Your task to perform on an android device: install app "Roku - Official Remote Control" Image 0: 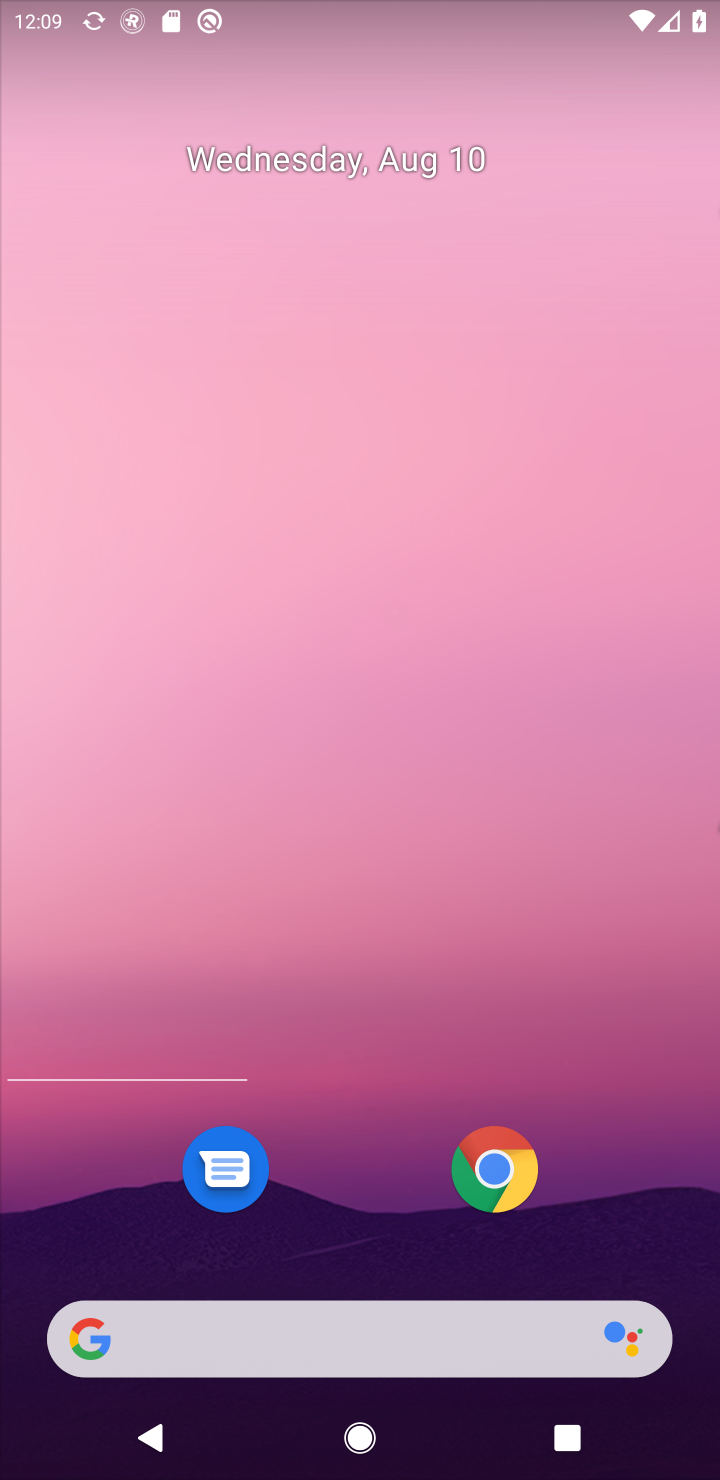
Step 0: press home button
Your task to perform on an android device: install app "Roku - Official Remote Control" Image 1: 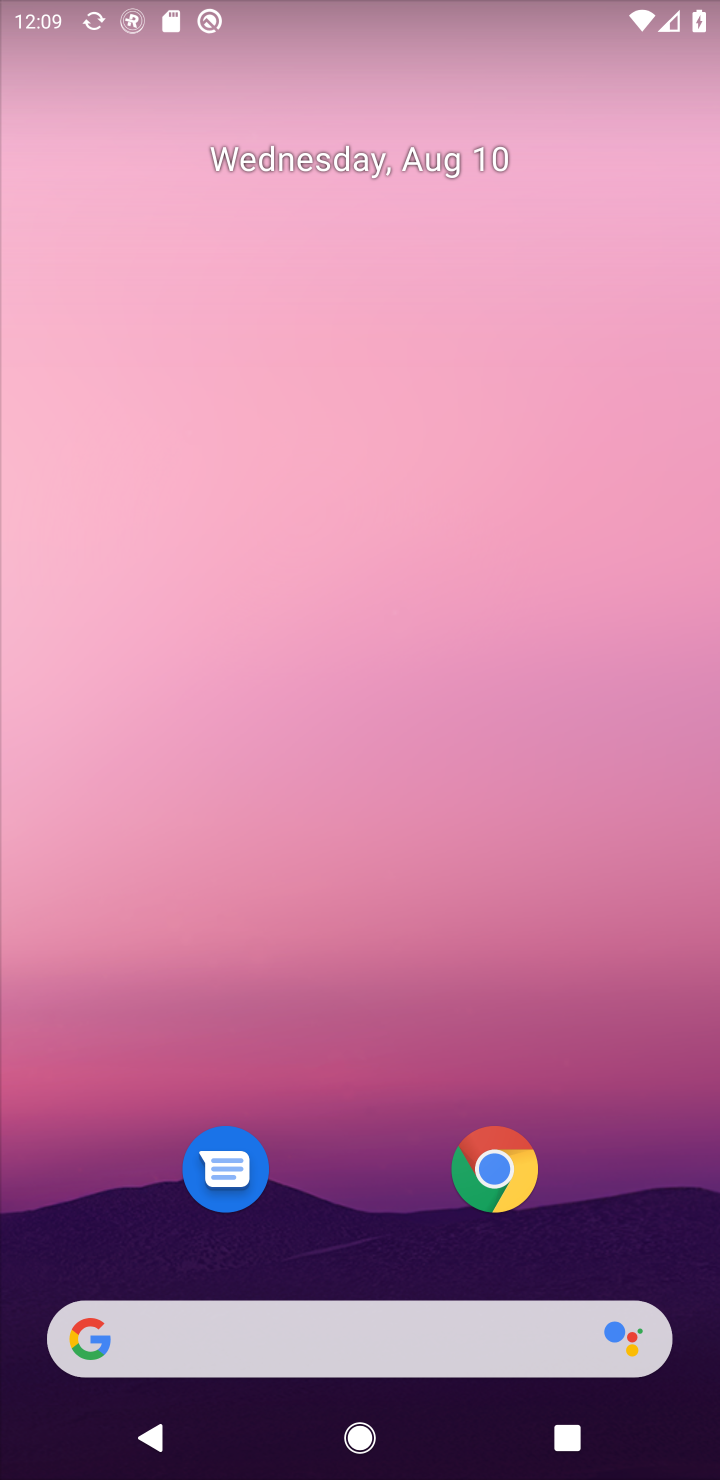
Step 1: drag from (610, 1223) to (619, 182)
Your task to perform on an android device: install app "Roku - Official Remote Control" Image 2: 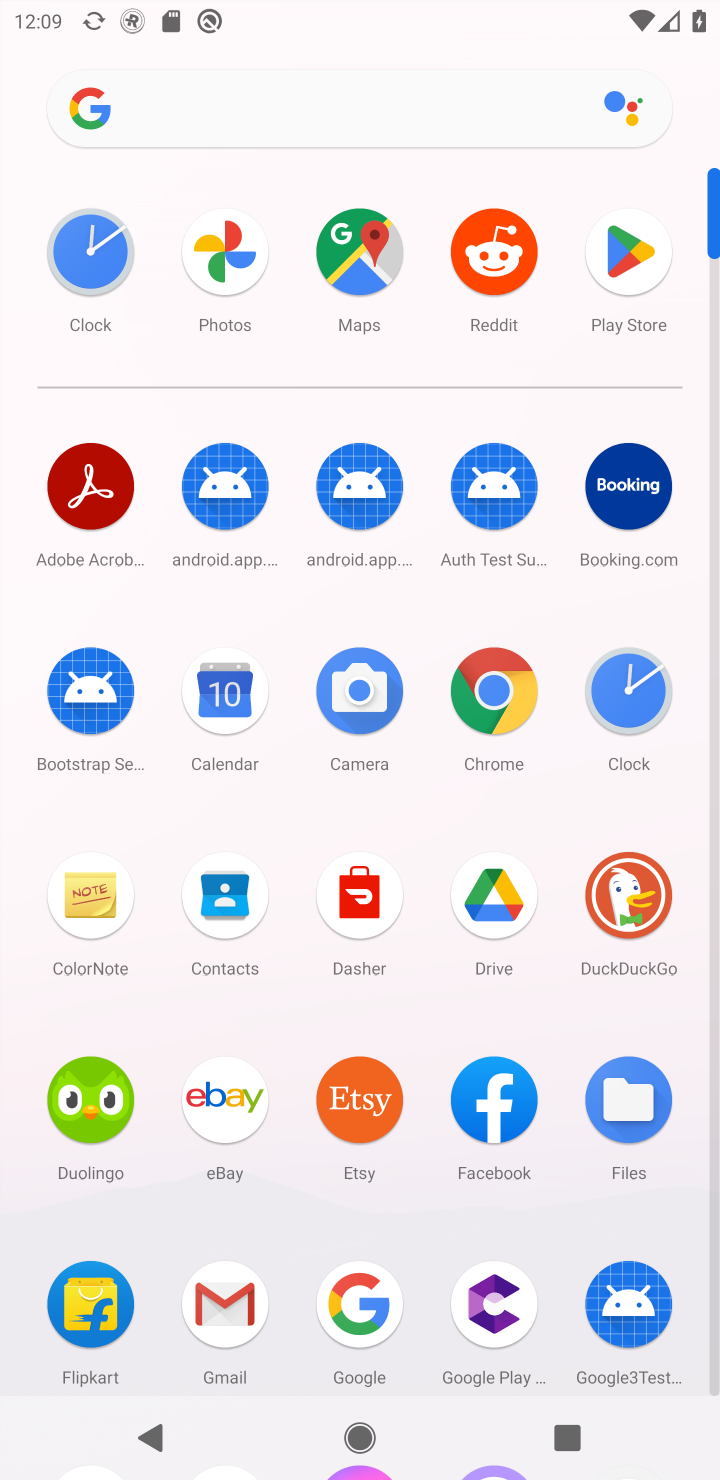
Step 2: click (638, 247)
Your task to perform on an android device: install app "Roku - Official Remote Control" Image 3: 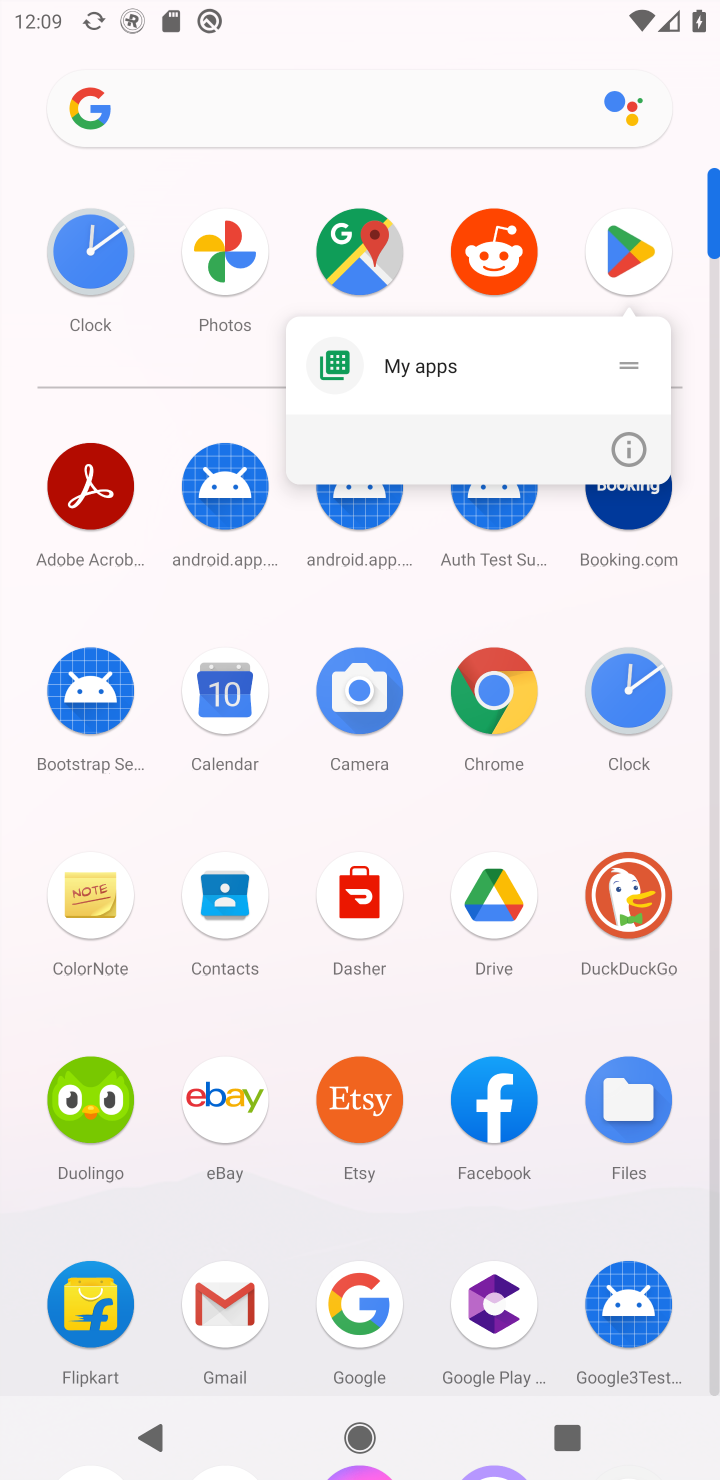
Step 3: click (638, 247)
Your task to perform on an android device: install app "Roku - Official Remote Control" Image 4: 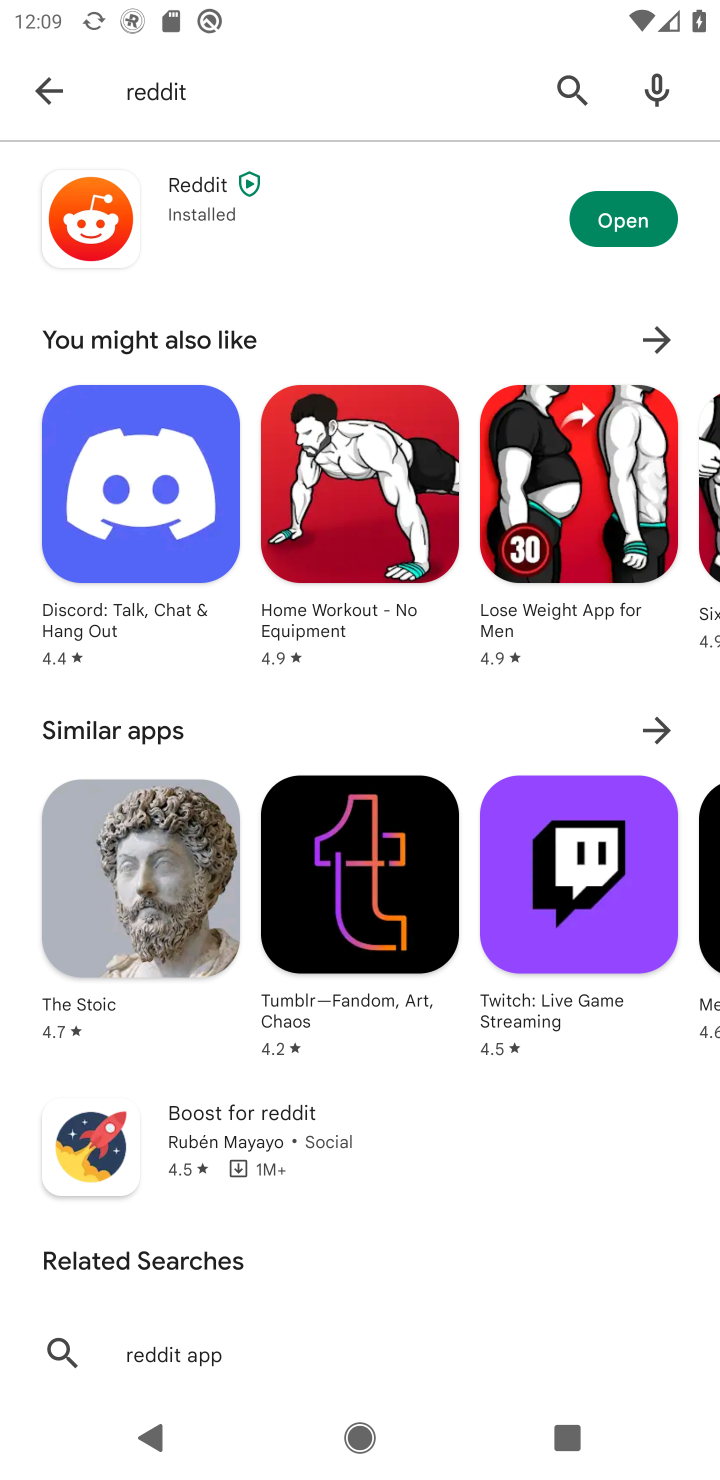
Step 4: click (562, 89)
Your task to perform on an android device: install app "Roku - Official Remote Control" Image 5: 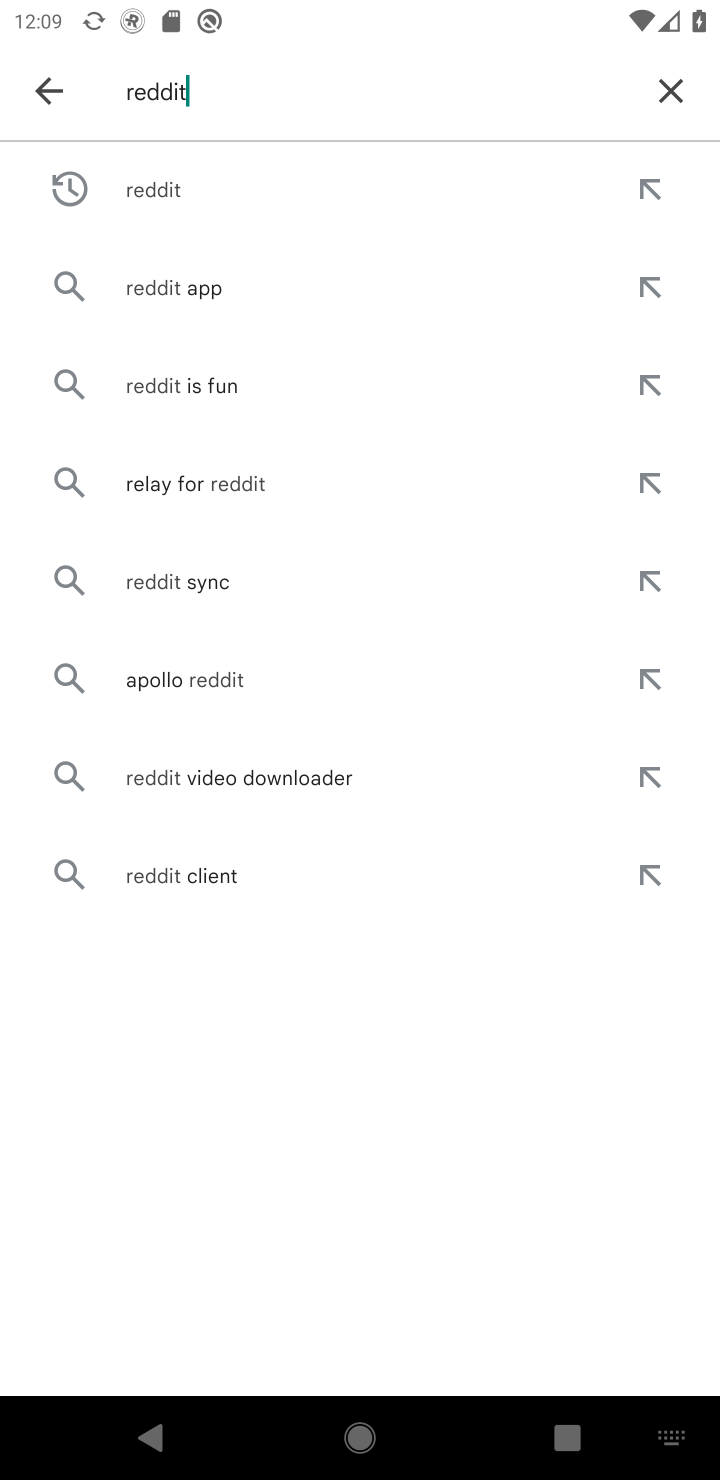
Step 5: click (672, 84)
Your task to perform on an android device: install app "Roku - Official Remote Control" Image 6: 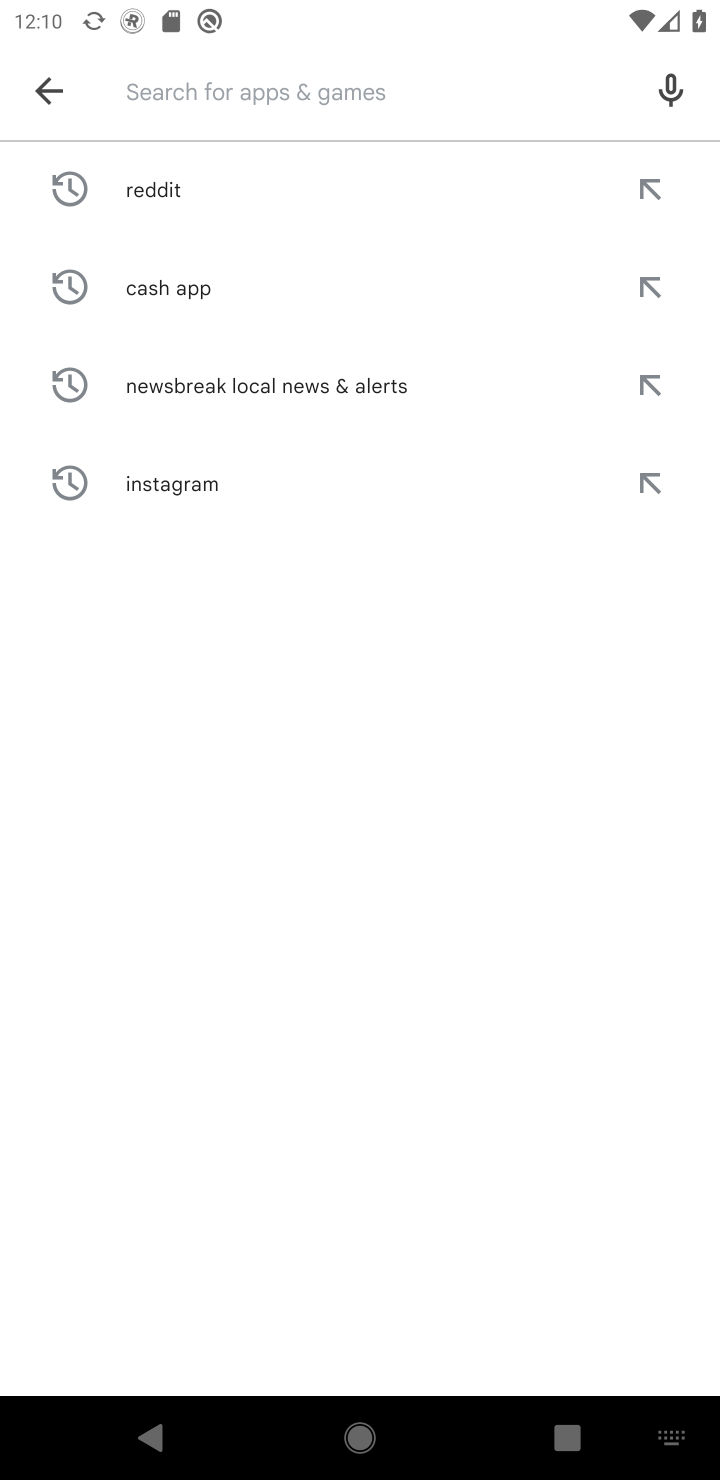
Step 6: press enter
Your task to perform on an android device: install app "Roku - Official Remote Control" Image 7: 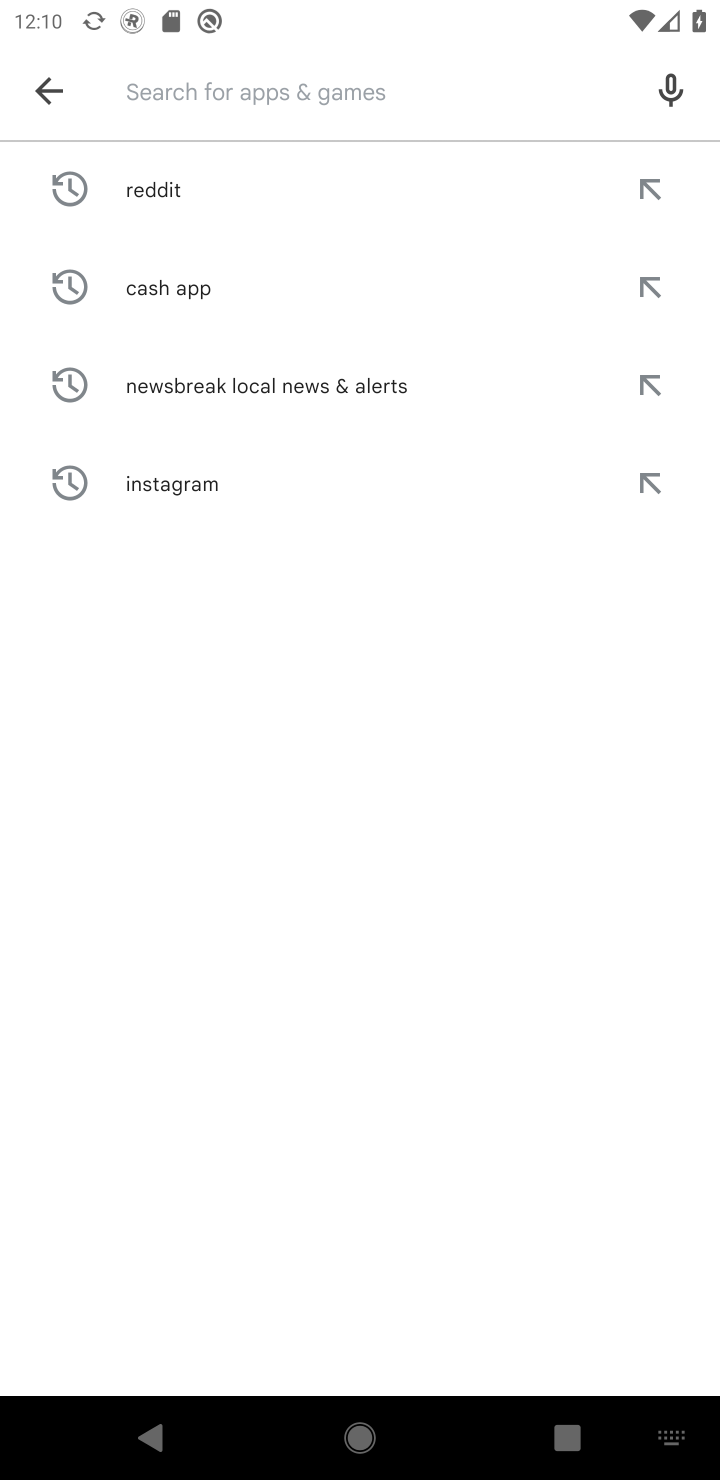
Step 7: type "Roku - Official Remote Control"
Your task to perform on an android device: install app "Roku - Official Remote Control" Image 8: 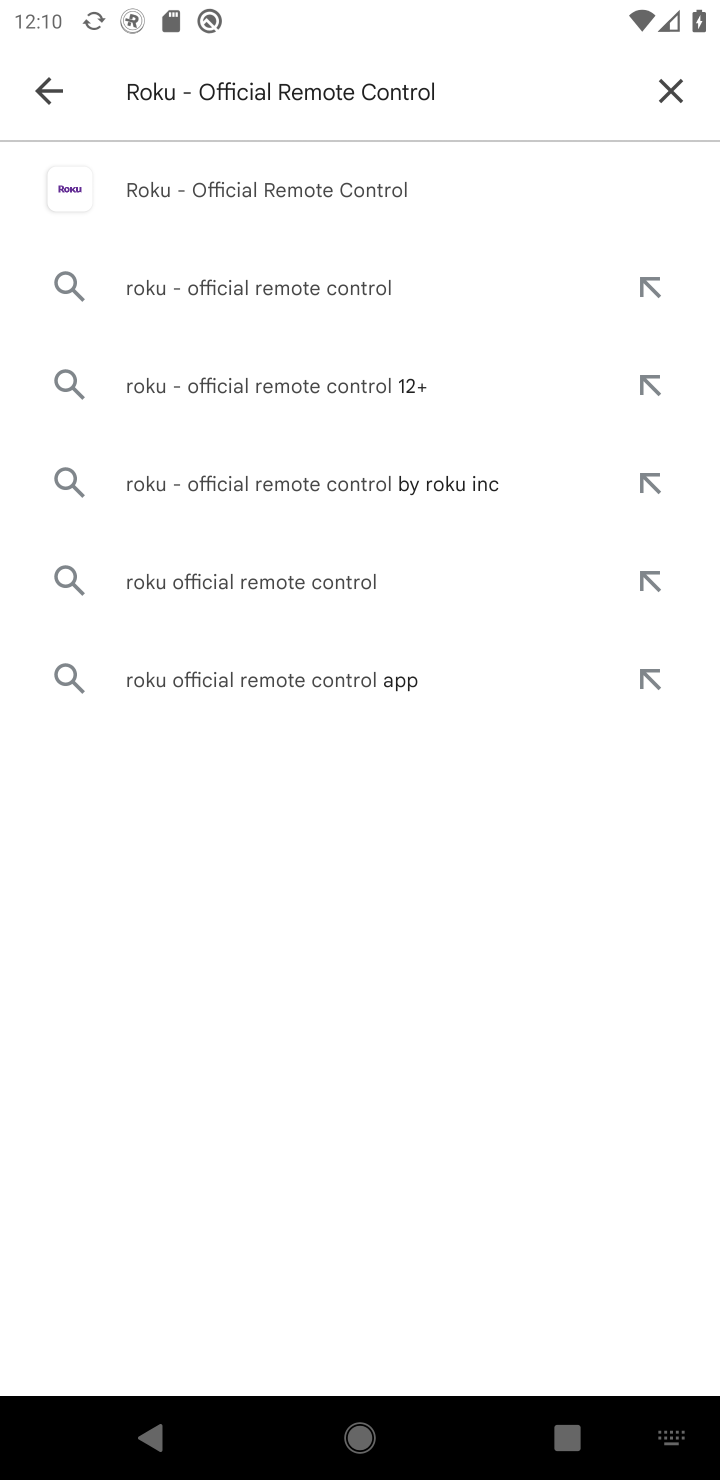
Step 8: click (309, 198)
Your task to perform on an android device: install app "Roku - Official Remote Control" Image 9: 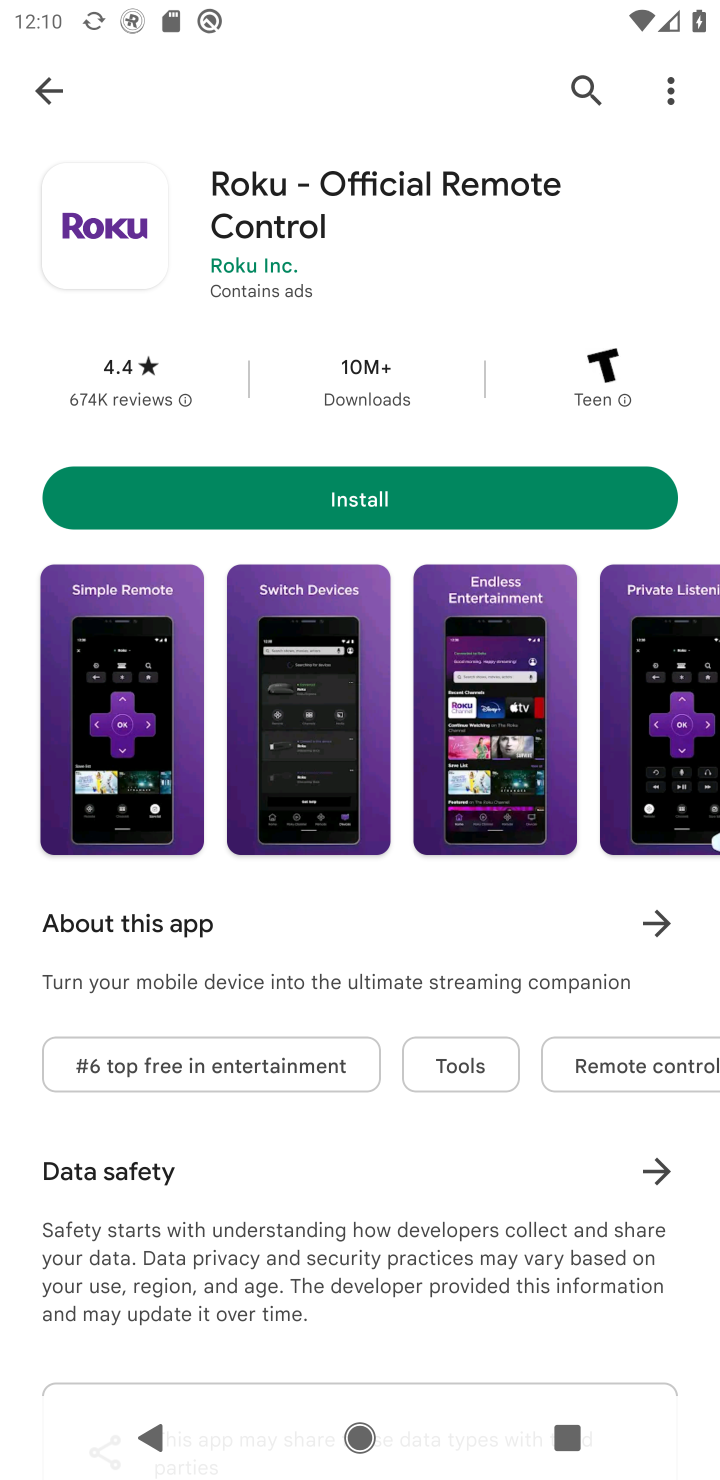
Step 9: click (460, 503)
Your task to perform on an android device: install app "Roku - Official Remote Control" Image 10: 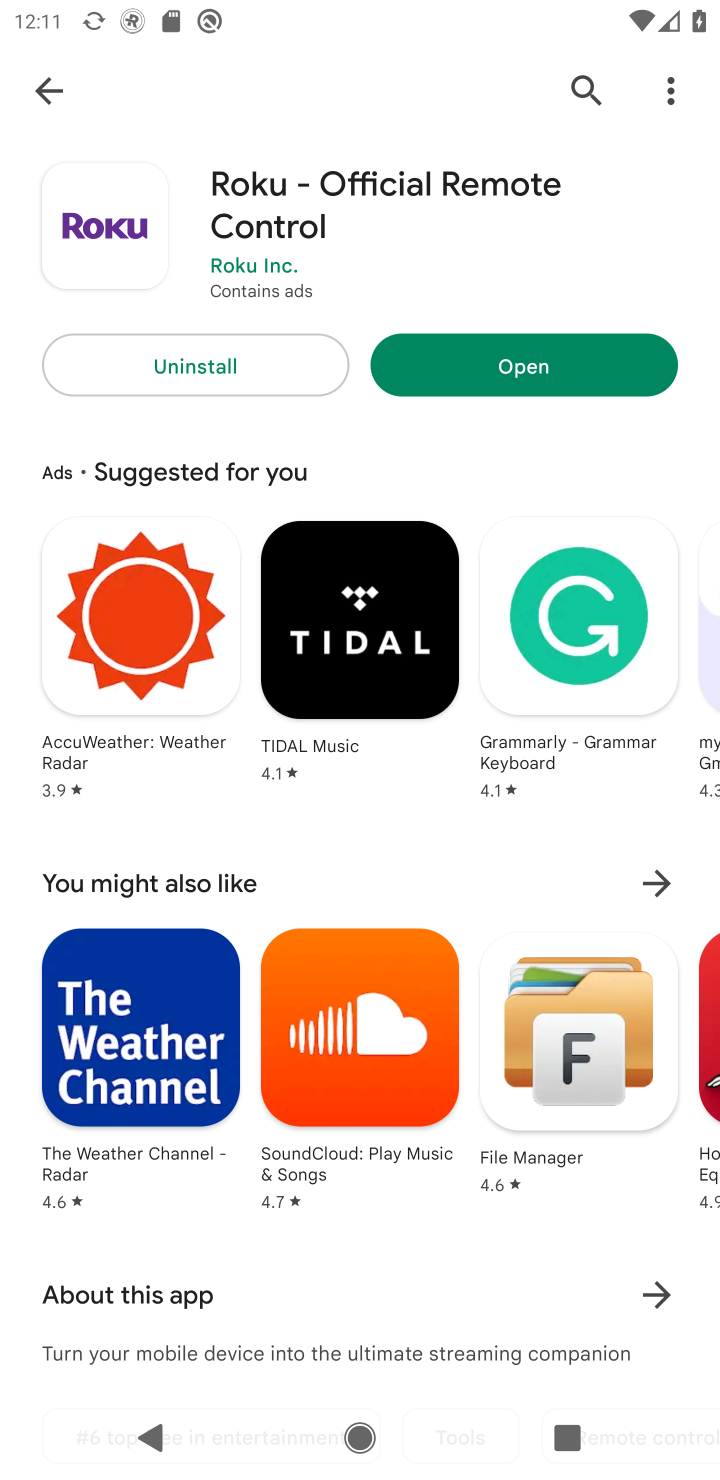
Step 10: task complete